Your task to perform on an android device: Go to Reddit.com Image 0: 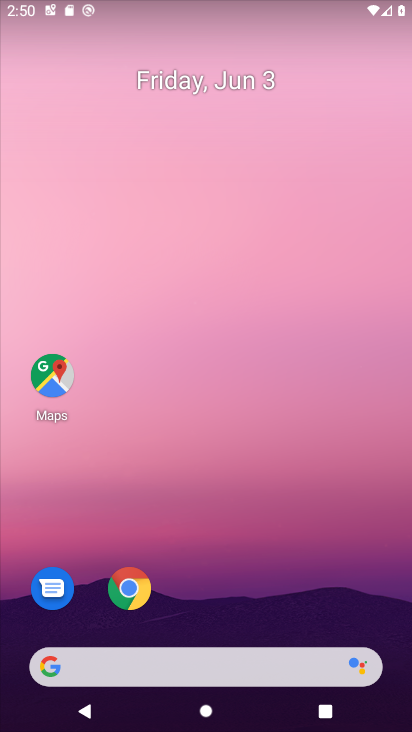
Step 0: drag from (203, 626) to (289, 0)
Your task to perform on an android device: Go to Reddit.com Image 1: 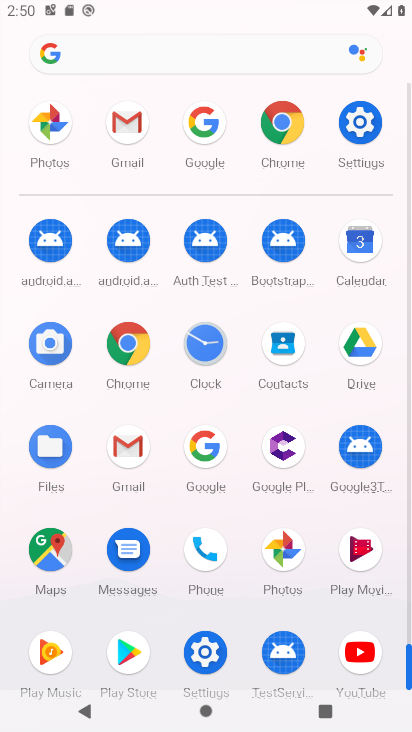
Step 1: click (294, 128)
Your task to perform on an android device: Go to Reddit.com Image 2: 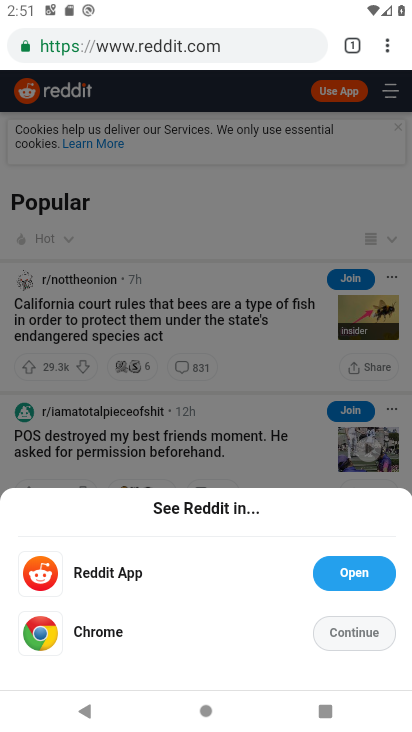
Step 2: task complete